Your task to perform on an android device: Open Chrome and go to the settings page Image 0: 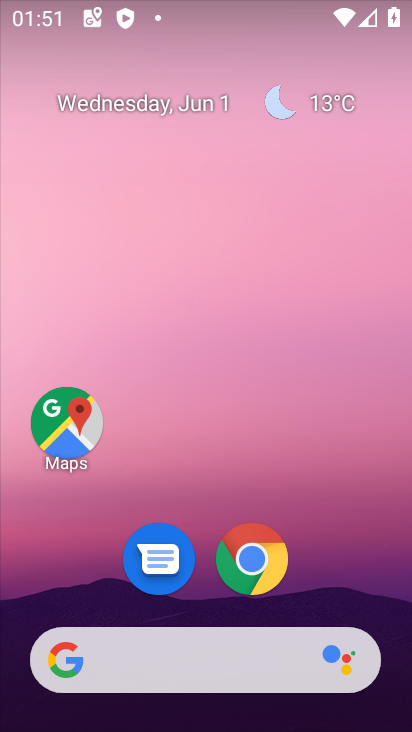
Step 0: click (236, 572)
Your task to perform on an android device: Open Chrome and go to the settings page Image 1: 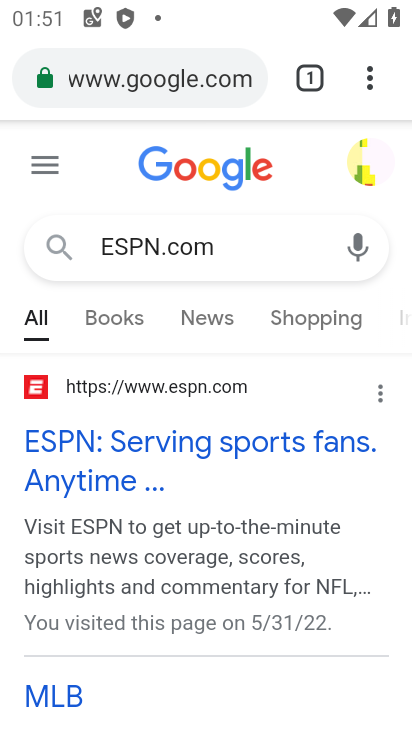
Step 1: click (370, 68)
Your task to perform on an android device: Open Chrome and go to the settings page Image 2: 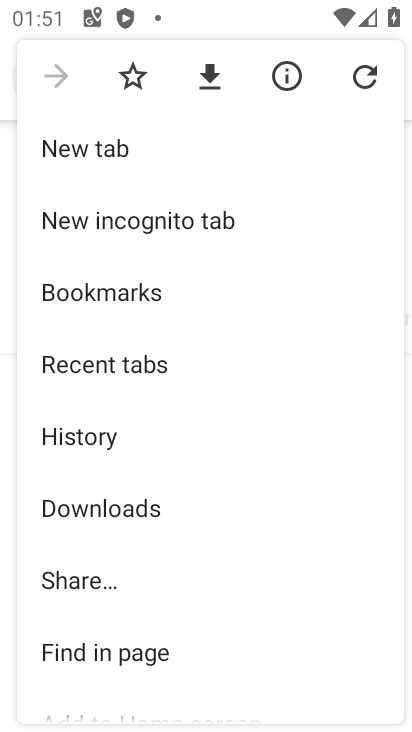
Step 2: drag from (284, 629) to (267, 299)
Your task to perform on an android device: Open Chrome and go to the settings page Image 3: 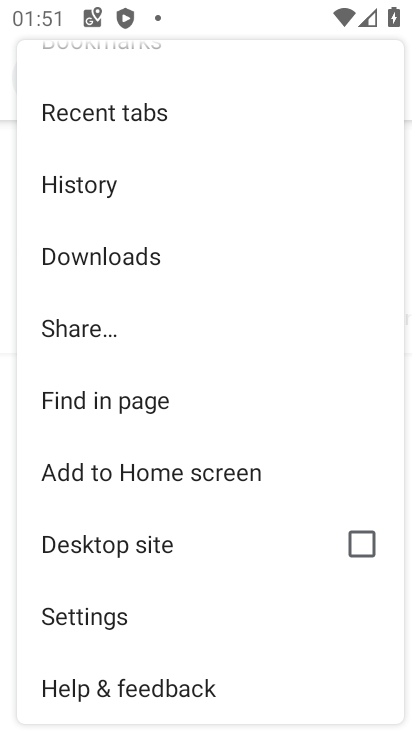
Step 3: click (105, 612)
Your task to perform on an android device: Open Chrome and go to the settings page Image 4: 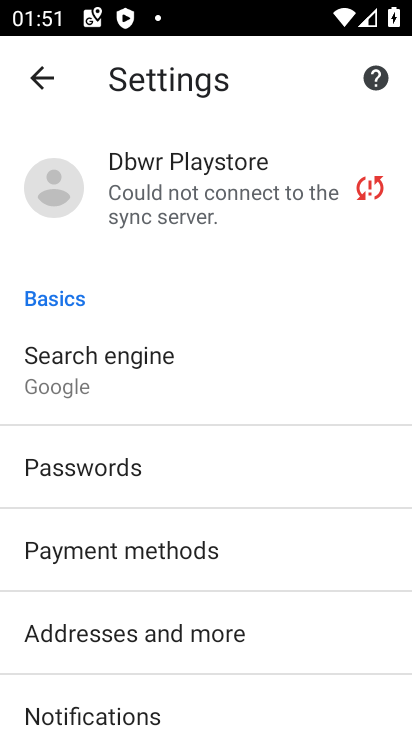
Step 4: task complete